Your task to perform on an android device: Clear all items from cart on bestbuy. Search for dell xps on bestbuy, select the first entry, add it to the cart, then select checkout. Image 0: 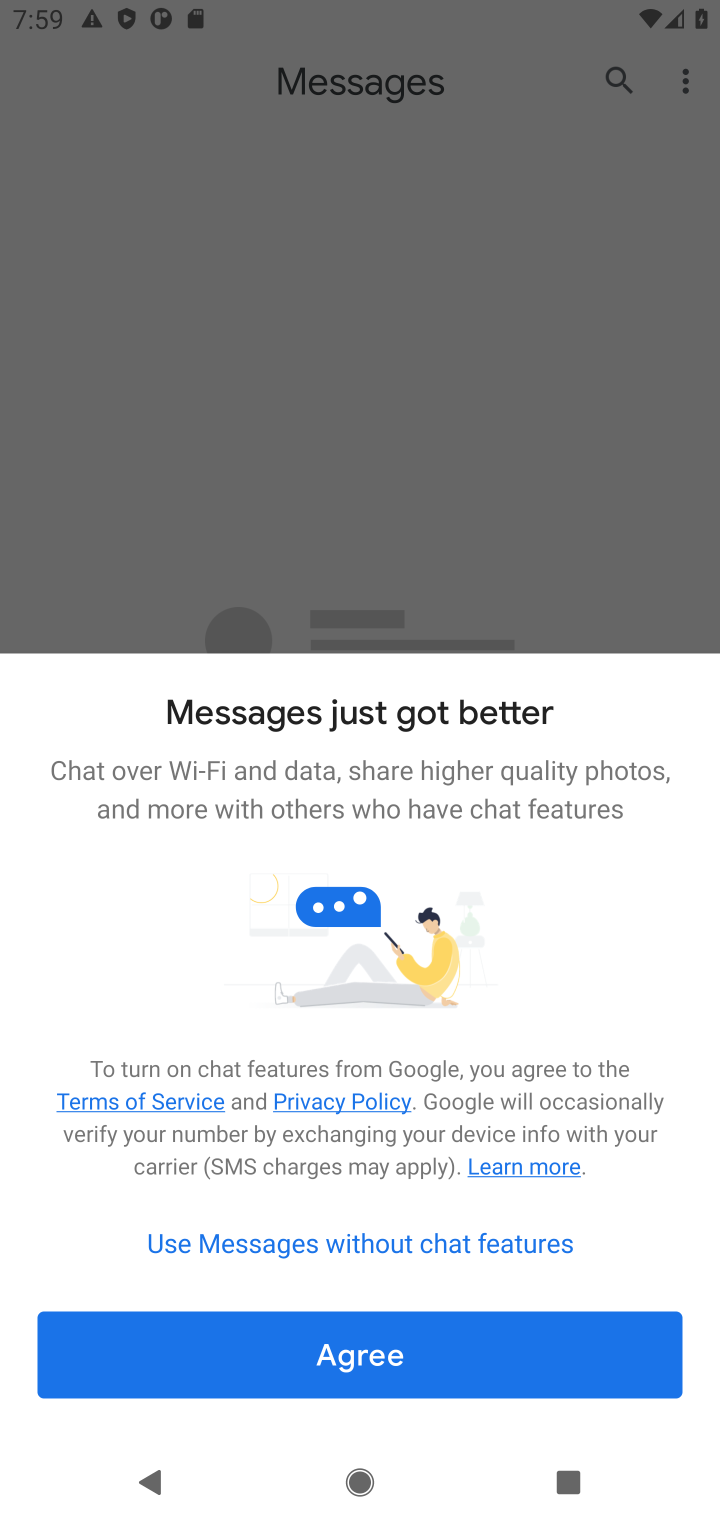
Step 0: press home button
Your task to perform on an android device: Clear all items from cart on bestbuy. Search for dell xps on bestbuy, select the first entry, add it to the cart, then select checkout. Image 1: 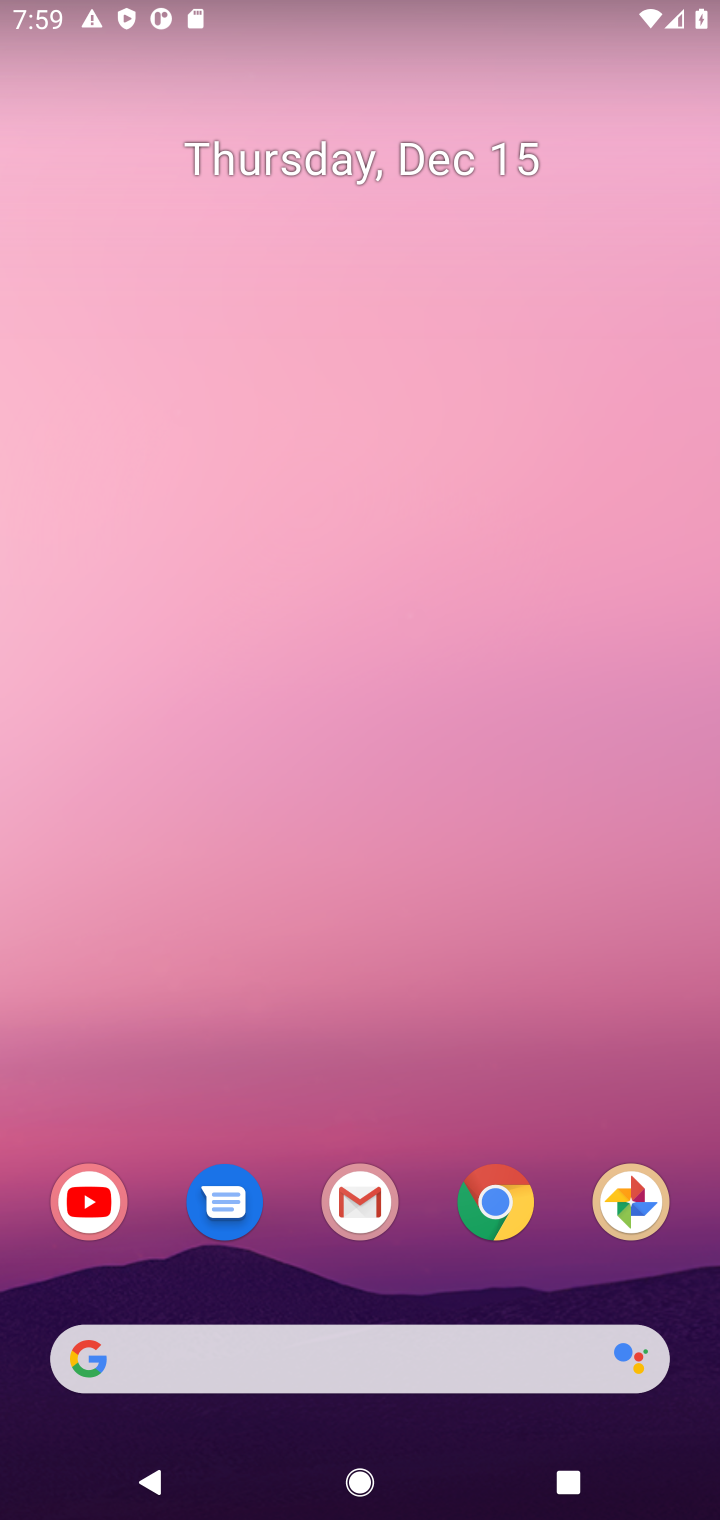
Step 1: click (493, 1214)
Your task to perform on an android device: Clear all items from cart on bestbuy. Search for dell xps on bestbuy, select the first entry, add it to the cart, then select checkout. Image 2: 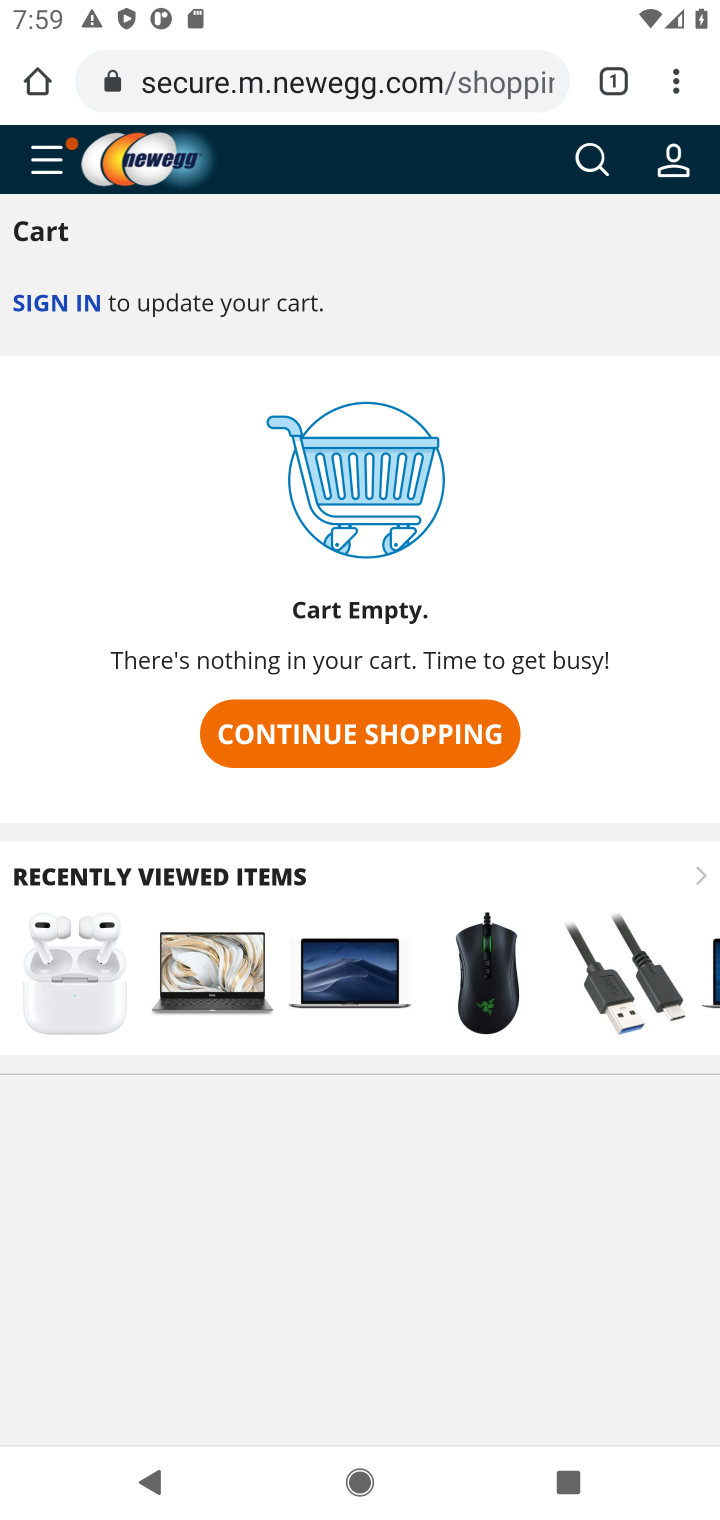
Step 2: click (247, 88)
Your task to perform on an android device: Clear all items from cart on bestbuy. Search for dell xps on bestbuy, select the first entry, add it to the cart, then select checkout. Image 3: 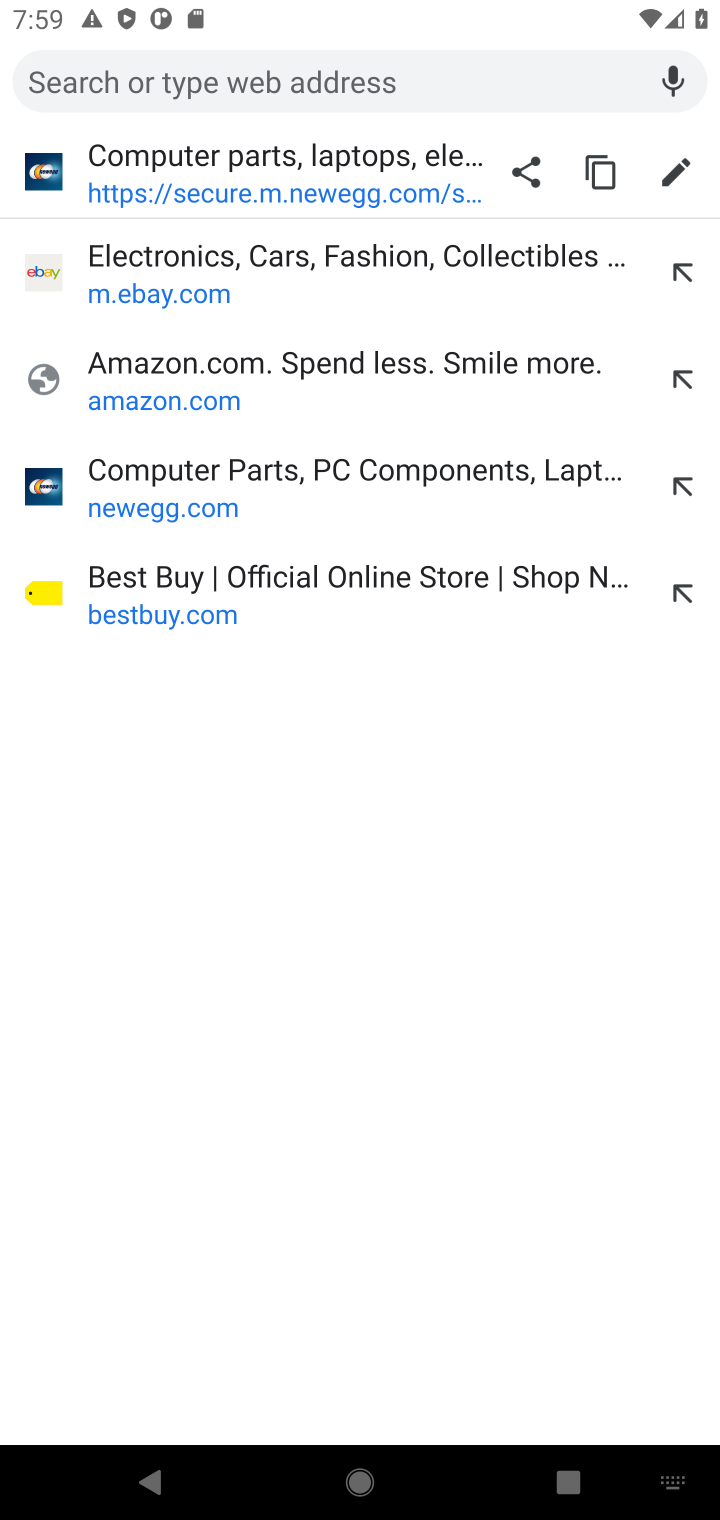
Step 3: click (167, 608)
Your task to perform on an android device: Clear all items from cart on bestbuy. Search for dell xps on bestbuy, select the first entry, add it to the cart, then select checkout. Image 4: 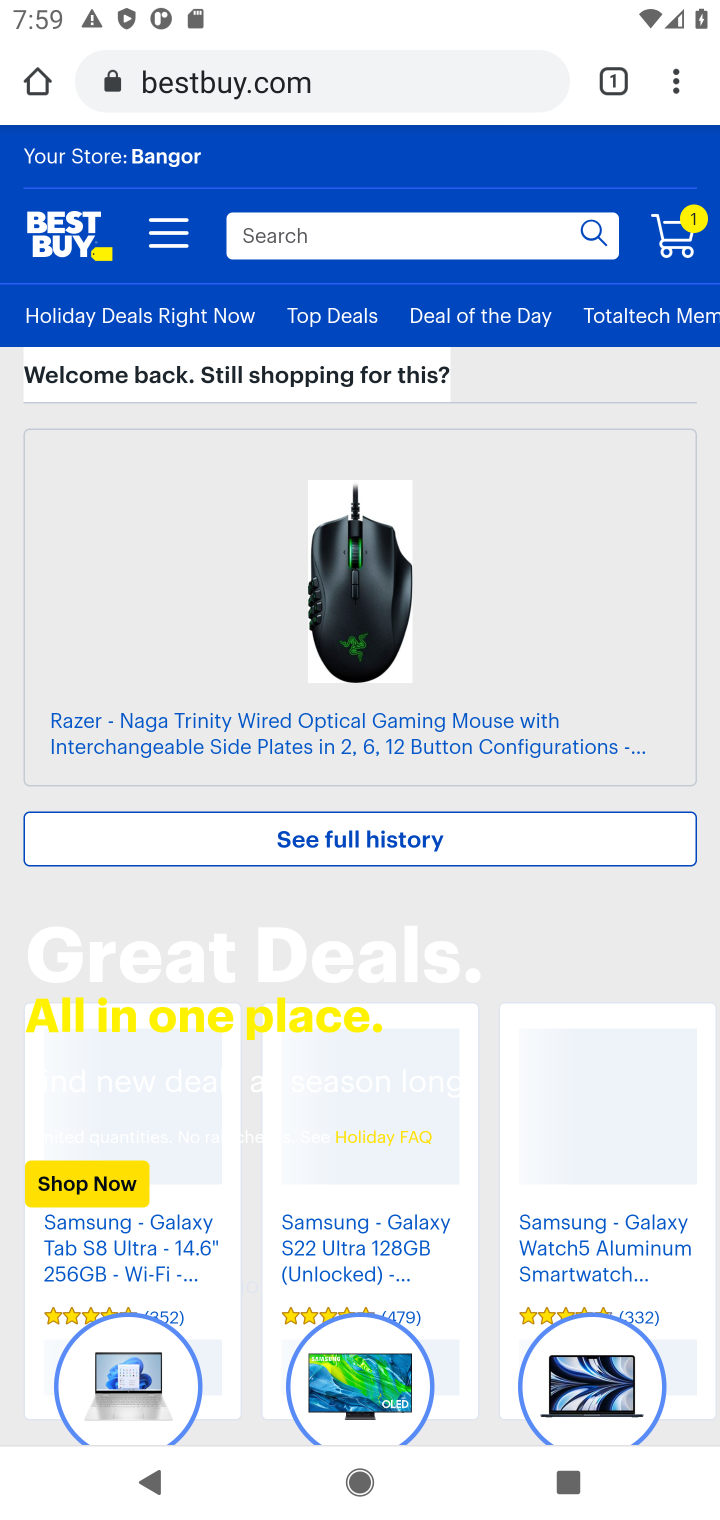
Step 4: click (668, 244)
Your task to perform on an android device: Clear all items from cart on bestbuy. Search for dell xps on bestbuy, select the first entry, add it to the cart, then select checkout. Image 5: 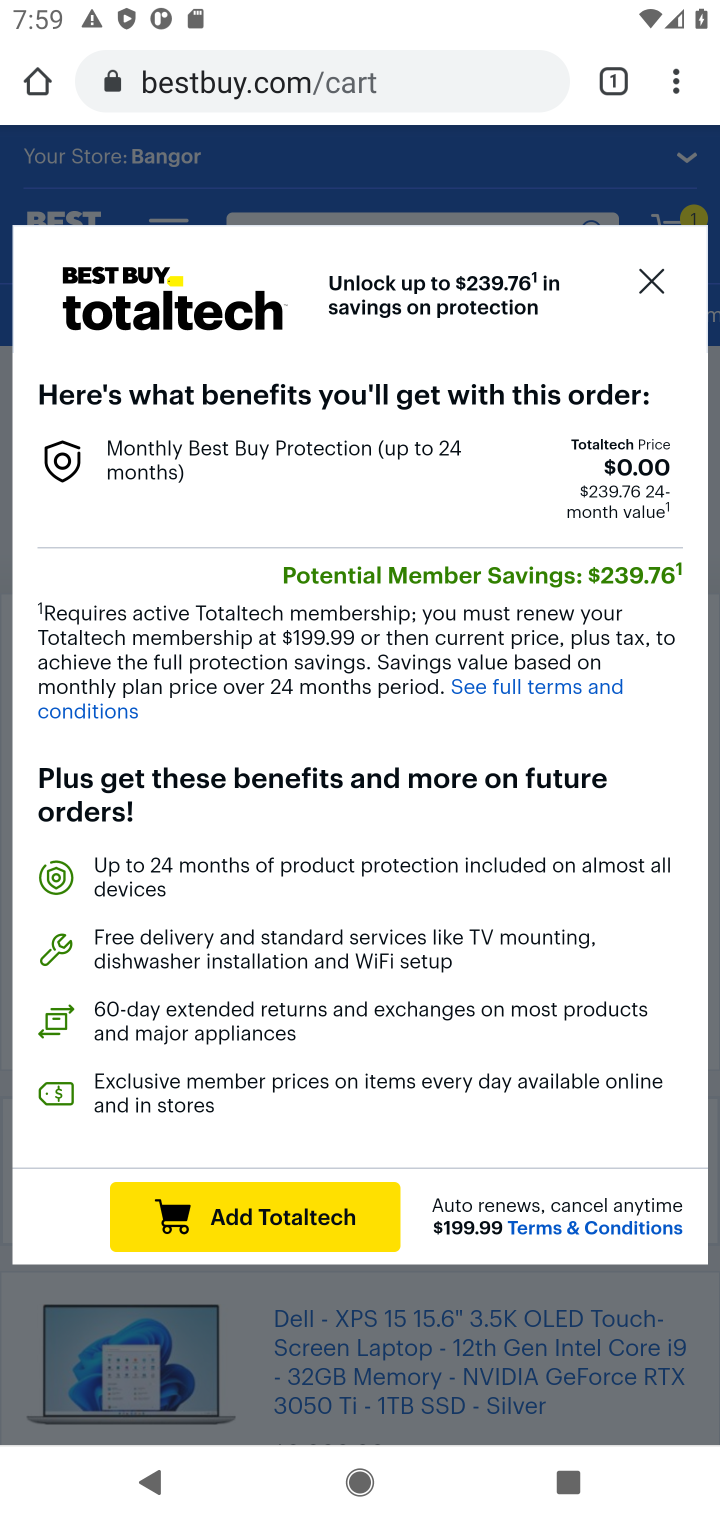
Step 5: click (654, 280)
Your task to perform on an android device: Clear all items from cart on bestbuy. Search for dell xps on bestbuy, select the first entry, add it to the cart, then select checkout. Image 6: 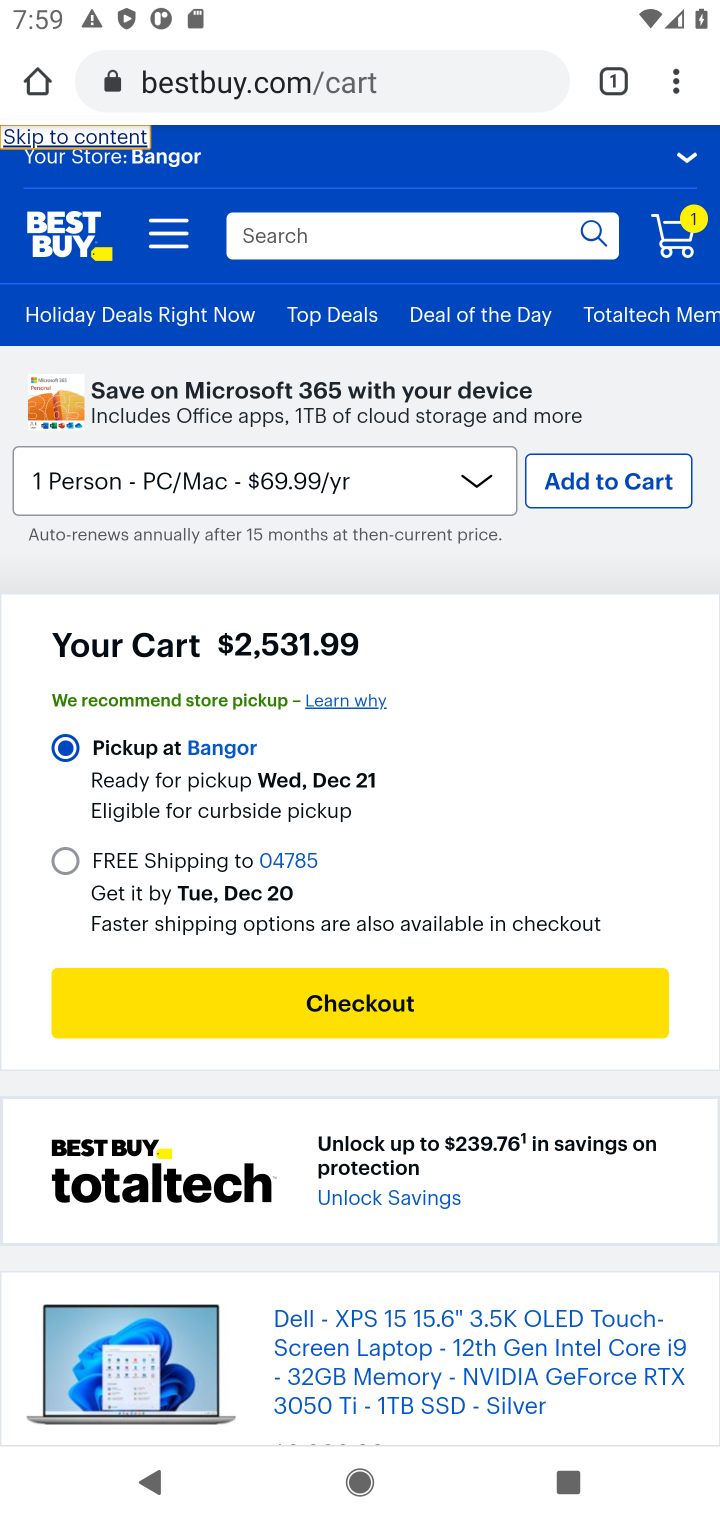
Step 6: drag from (517, 961) to (483, 441)
Your task to perform on an android device: Clear all items from cart on bestbuy. Search for dell xps on bestbuy, select the first entry, add it to the cart, then select checkout. Image 7: 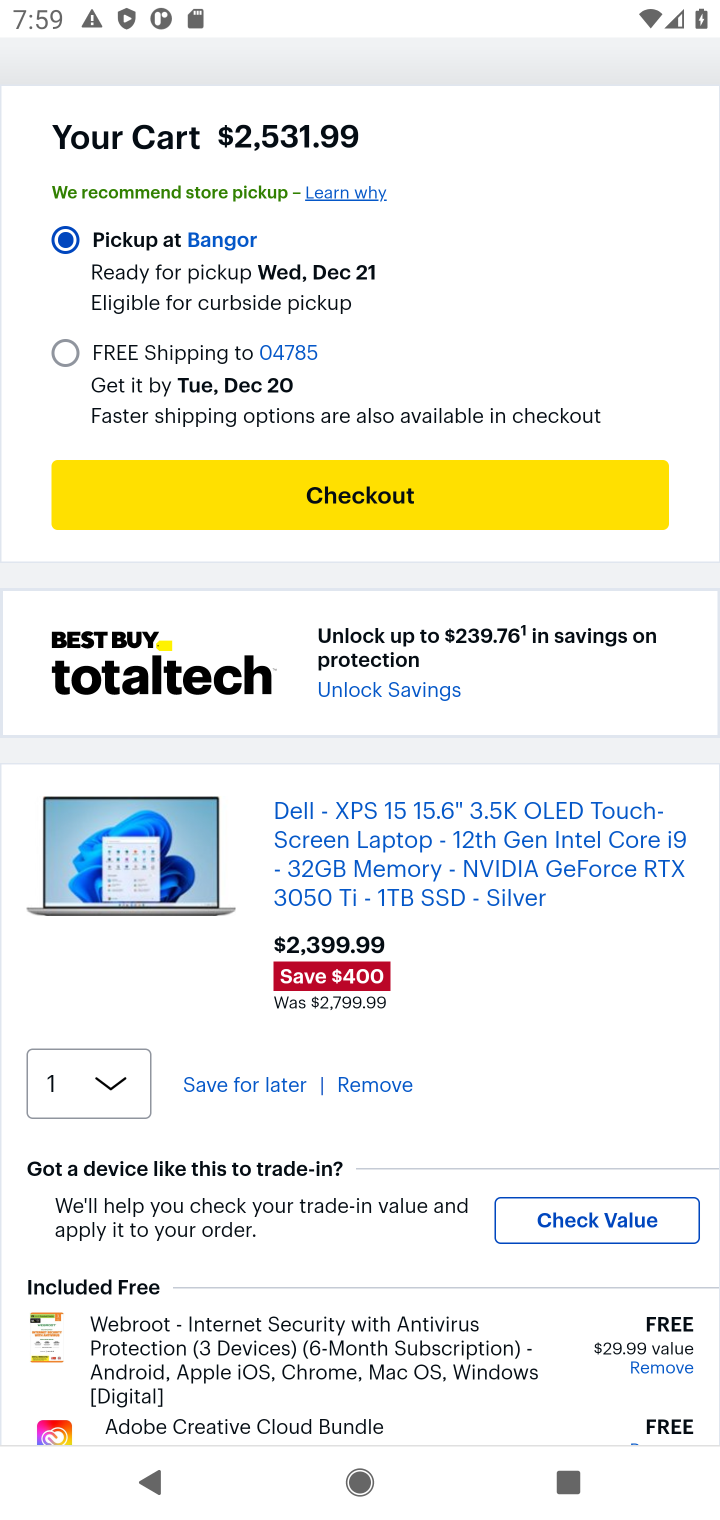
Step 7: click (363, 1084)
Your task to perform on an android device: Clear all items from cart on bestbuy. Search for dell xps on bestbuy, select the first entry, add it to the cart, then select checkout. Image 8: 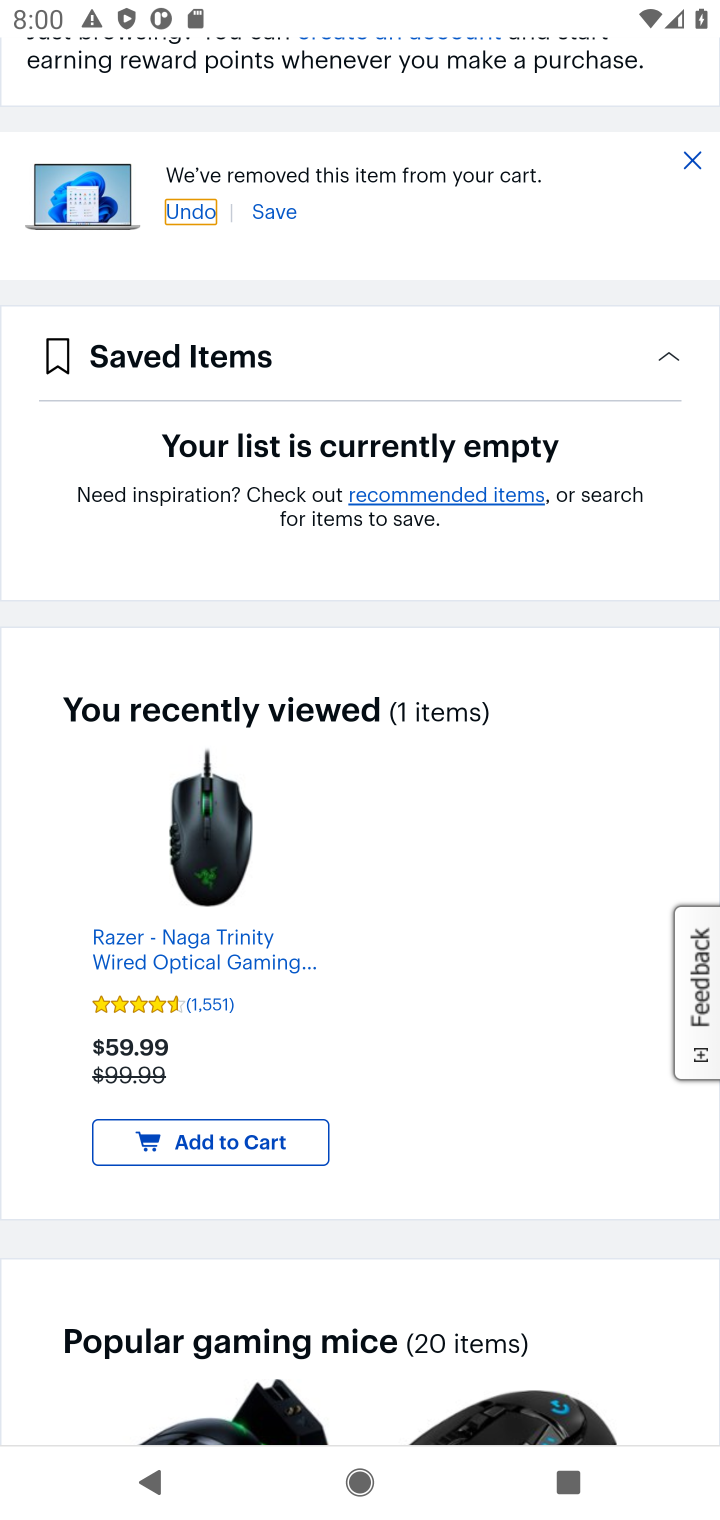
Step 8: drag from (546, 629) to (488, 994)
Your task to perform on an android device: Clear all items from cart on bestbuy. Search for dell xps on bestbuy, select the first entry, add it to the cart, then select checkout. Image 9: 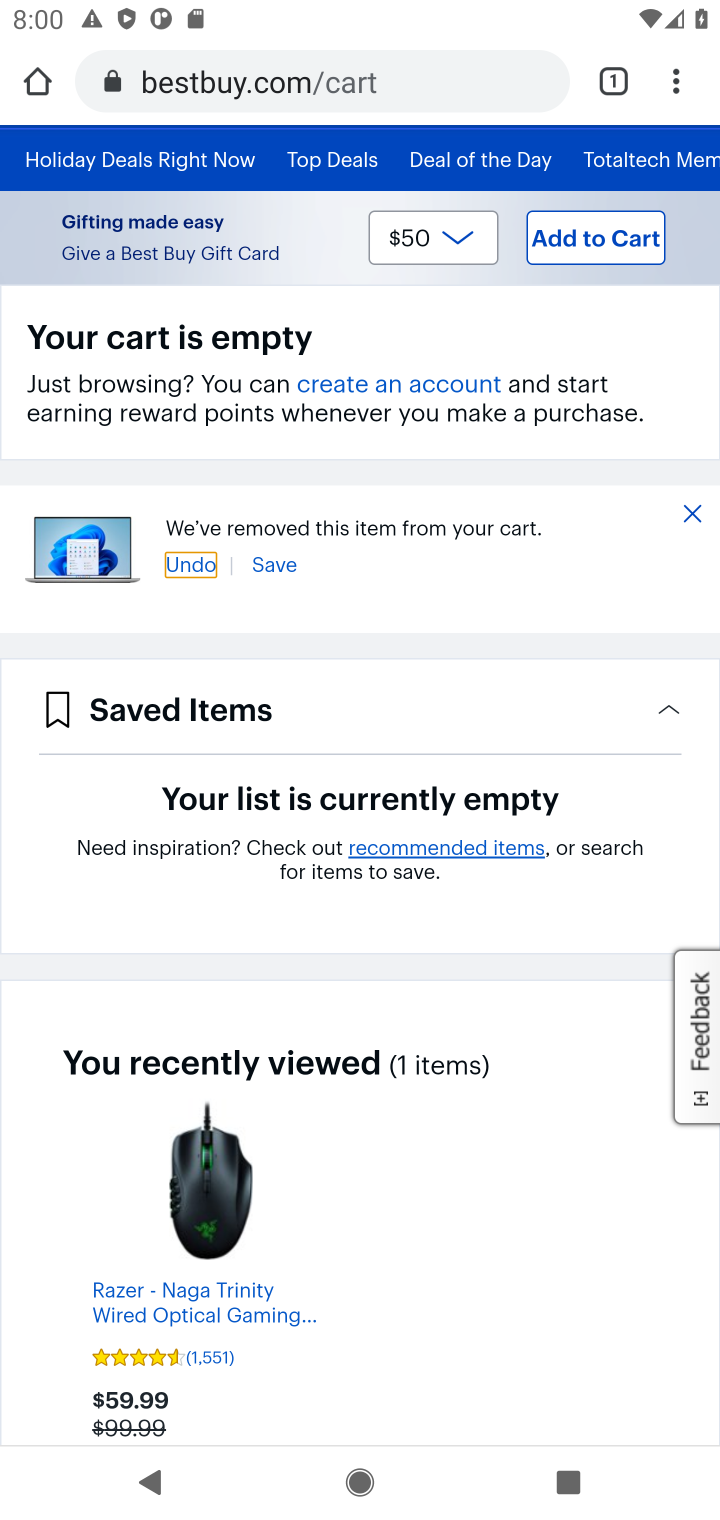
Step 9: drag from (329, 508) to (321, 785)
Your task to perform on an android device: Clear all items from cart on bestbuy. Search for dell xps on bestbuy, select the first entry, add it to the cart, then select checkout. Image 10: 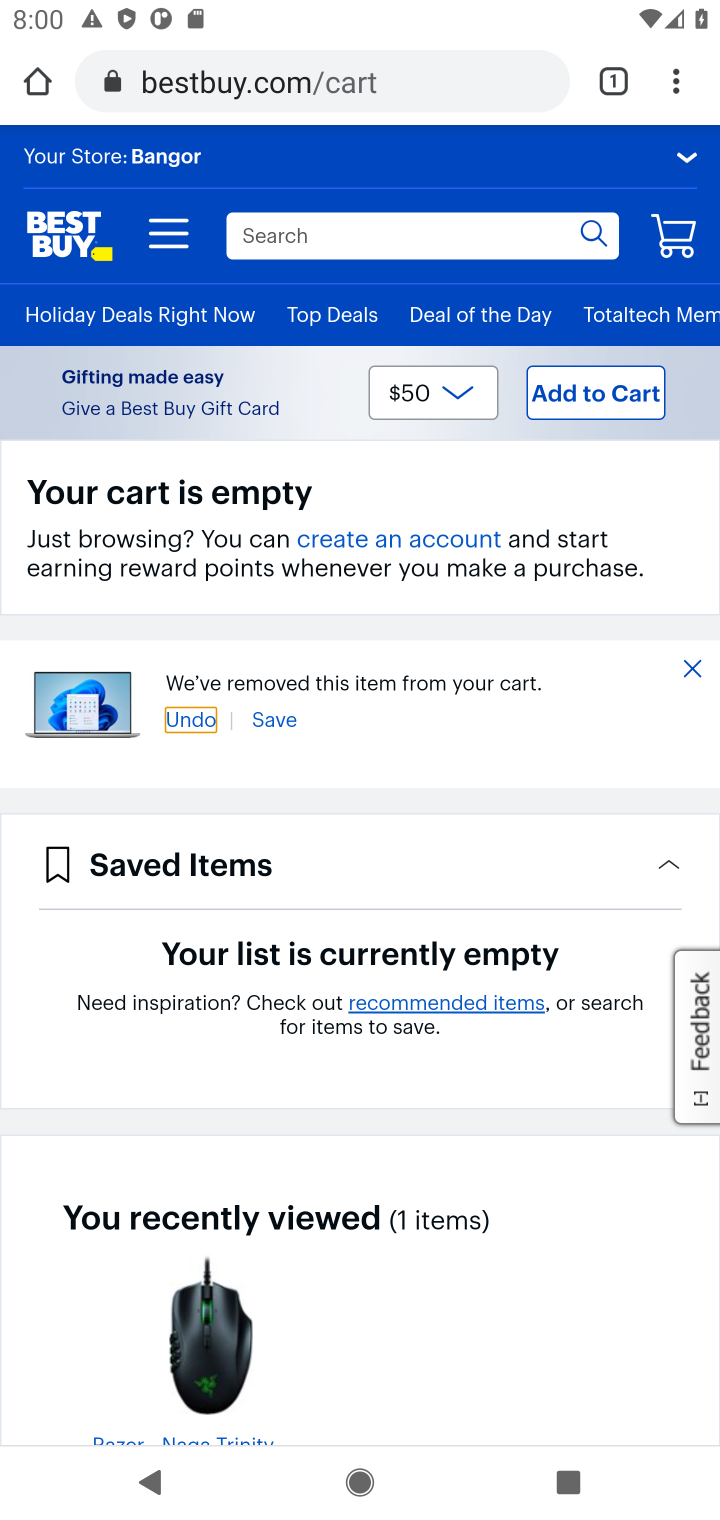
Step 10: click (283, 242)
Your task to perform on an android device: Clear all items from cart on bestbuy. Search for dell xps on bestbuy, select the first entry, add it to the cart, then select checkout. Image 11: 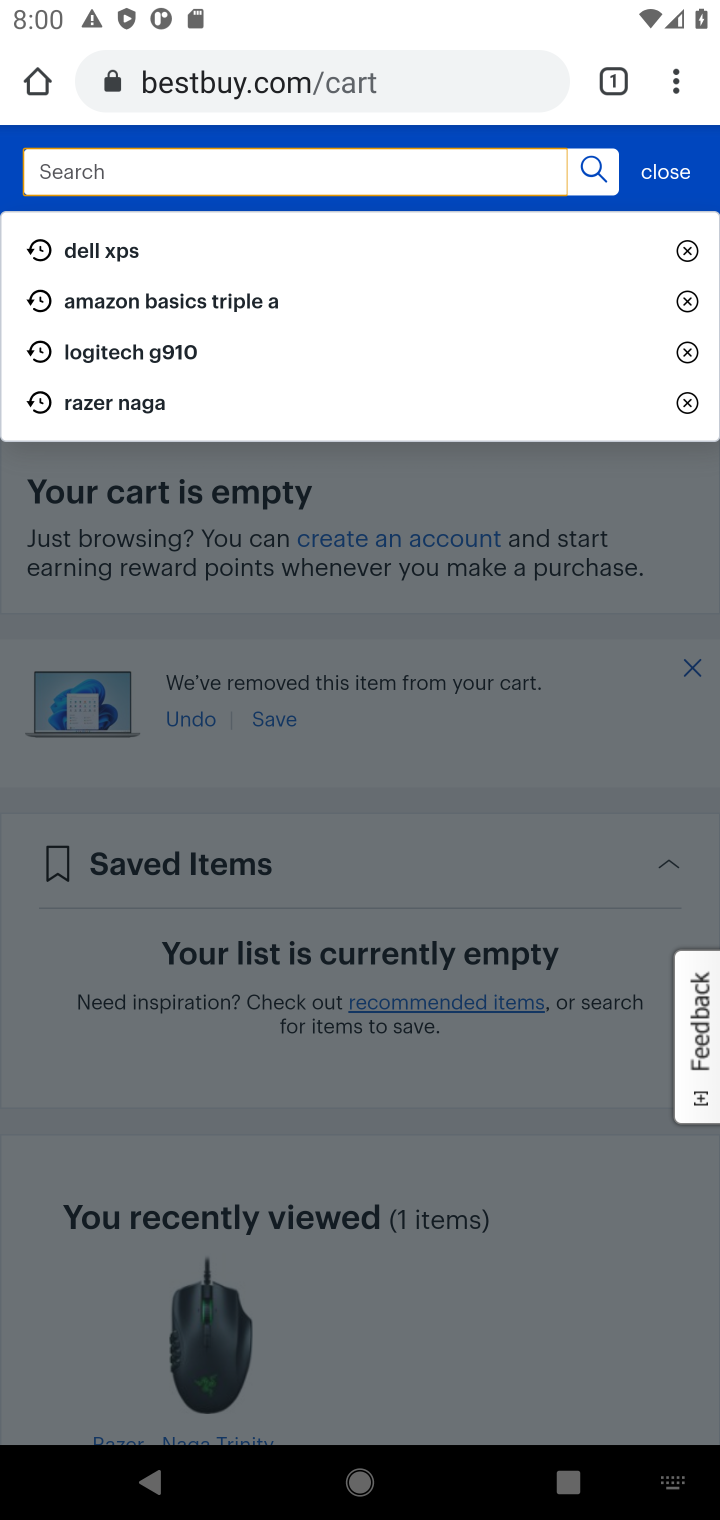
Step 11: type "dell xps"
Your task to perform on an android device: Clear all items from cart on bestbuy. Search for dell xps on bestbuy, select the first entry, add it to the cart, then select checkout. Image 12: 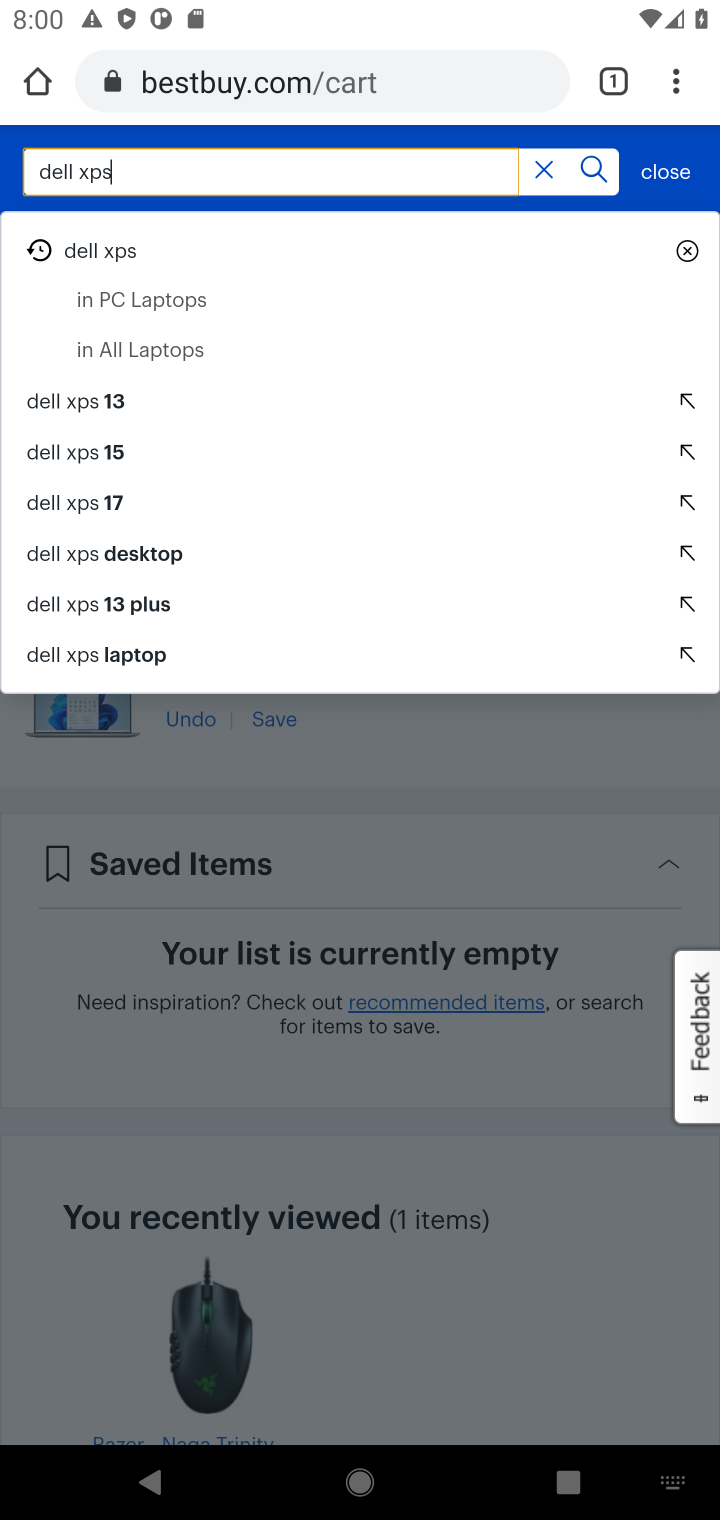
Step 12: click (92, 258)
Your task to perform on an android device: Clear all items from cart on bestbuy. Search for dell xps on bestbuy, select the first entry, add it to the cart, then select checkout. Image 13: 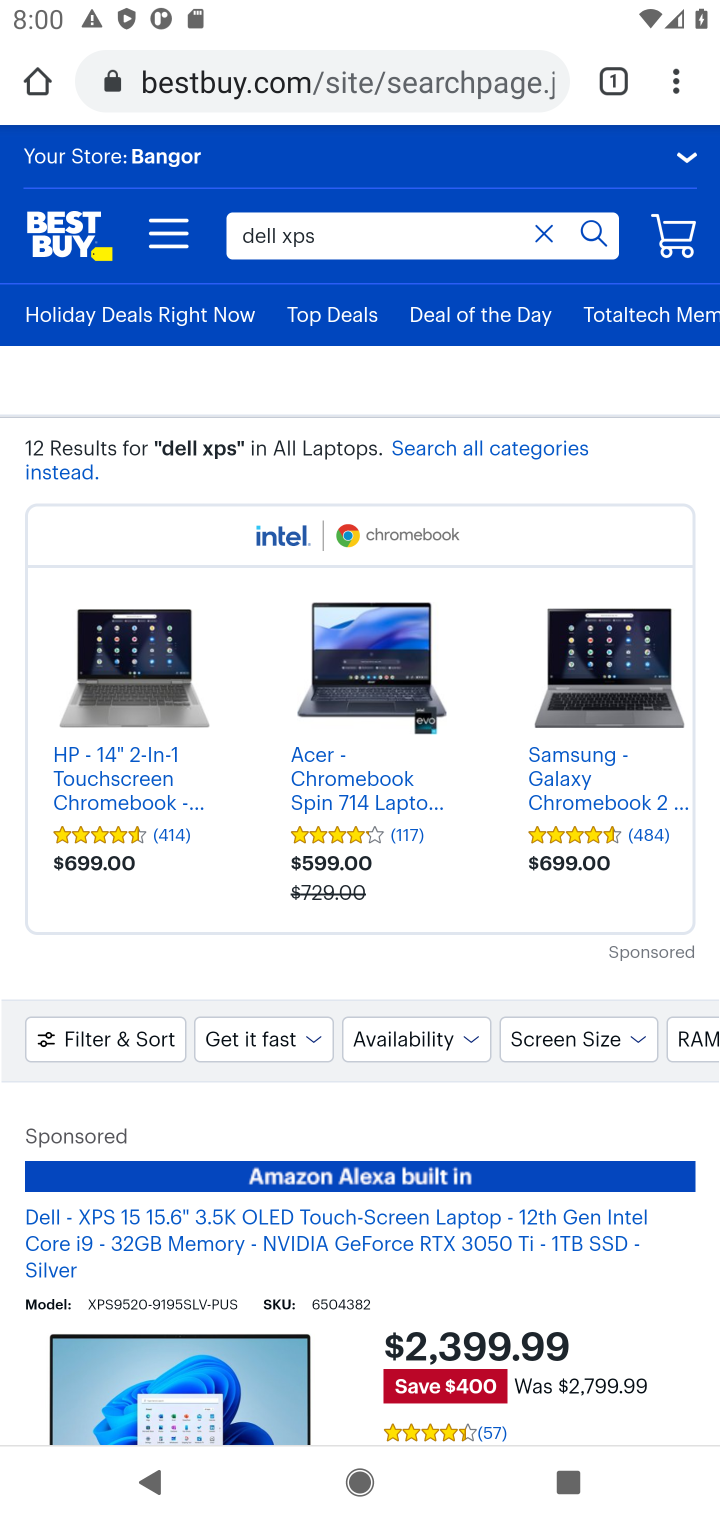
Step 13: drag from (271, 1250) to (233, 624)
Your task to perform on an android device: Clear all items from cart on bestbuy. Search for dell xps on bestbuy, select the first entry, add it to the cart, then select checkout. Image 14: 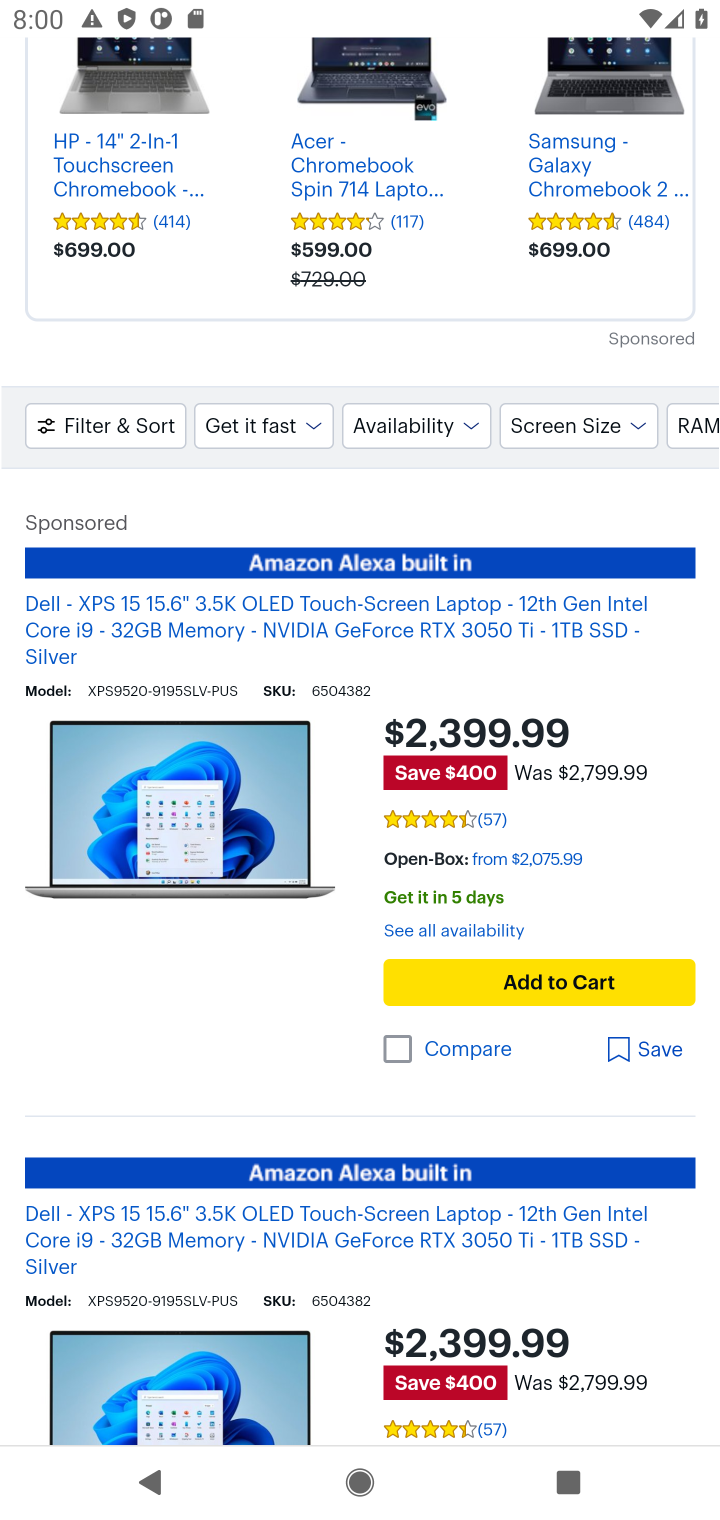
Step 14: click (466, 969)
Your task to perform on an android device: Clear all items from cart on bestbuy. Search for dell xps on bestbuy, select the first entry, add it to the cart, then select checkout. Image 15: 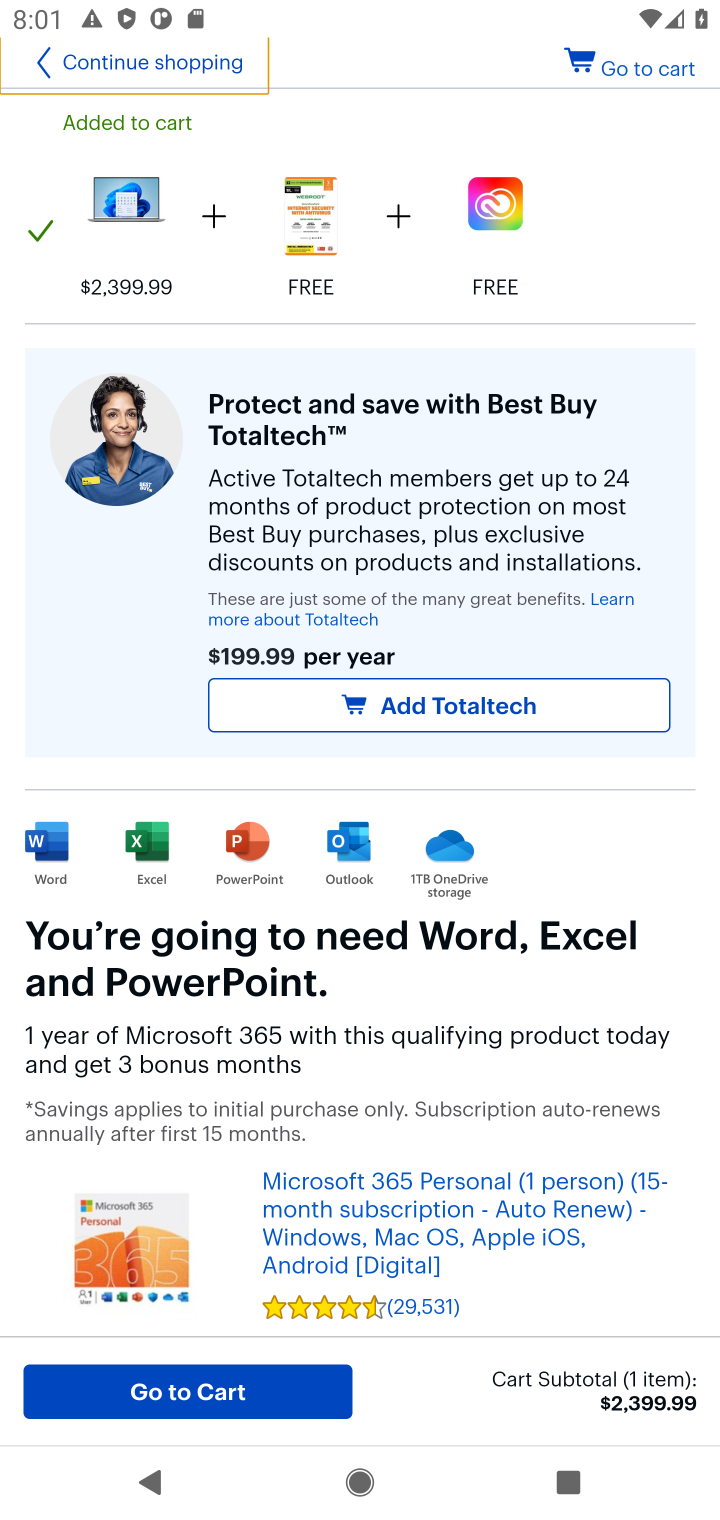
Step 15: click (630, 66)
Your task to perform on an android device: Clear all items from cart on bestbuy. Search for dell xps on bestbuy, select the first entry, add it to the cart, then select checkout. Image 16: 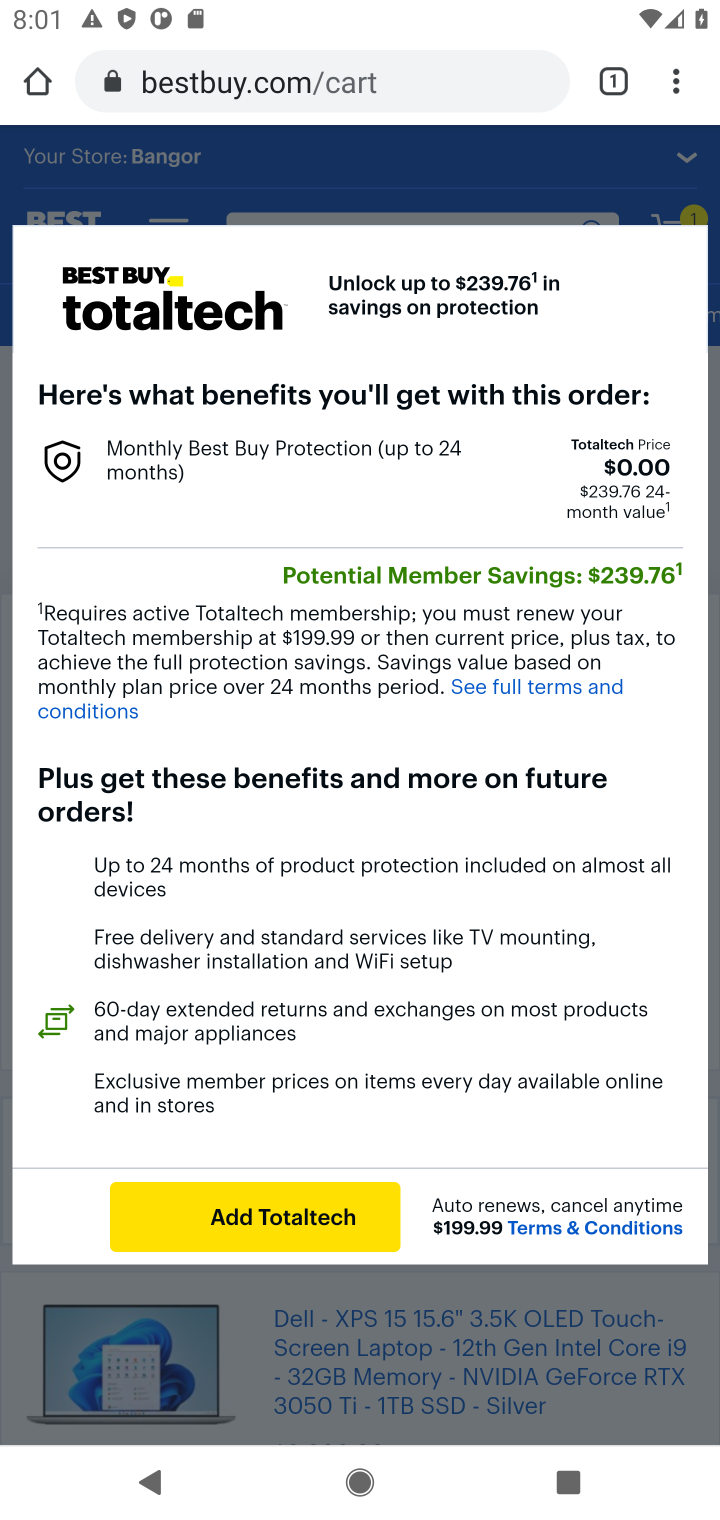
Step 16: click (337, 1016)
Your task to perform on an android device: Clear all items from cart on bestbuy. Search for dell xps on bestbuy, select the first entry, add it to the cart, then select checkout. Image 17: 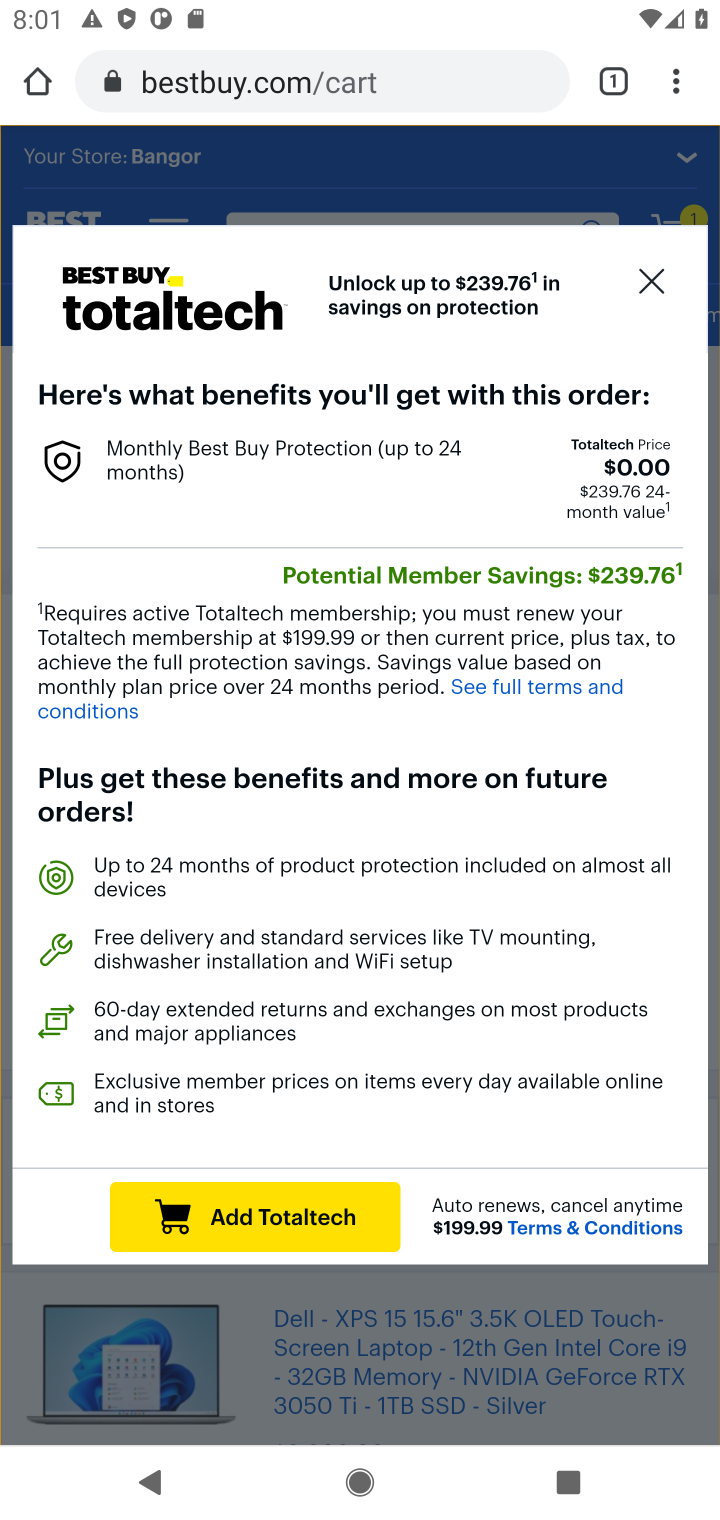
Step 17: click (664, 276)
Your task to perform on an android device: Clear all items from cart on bestbuy. Search for dell xps on bestbuy, select the first entry, add it to the cart, then select checkout. Image 18: 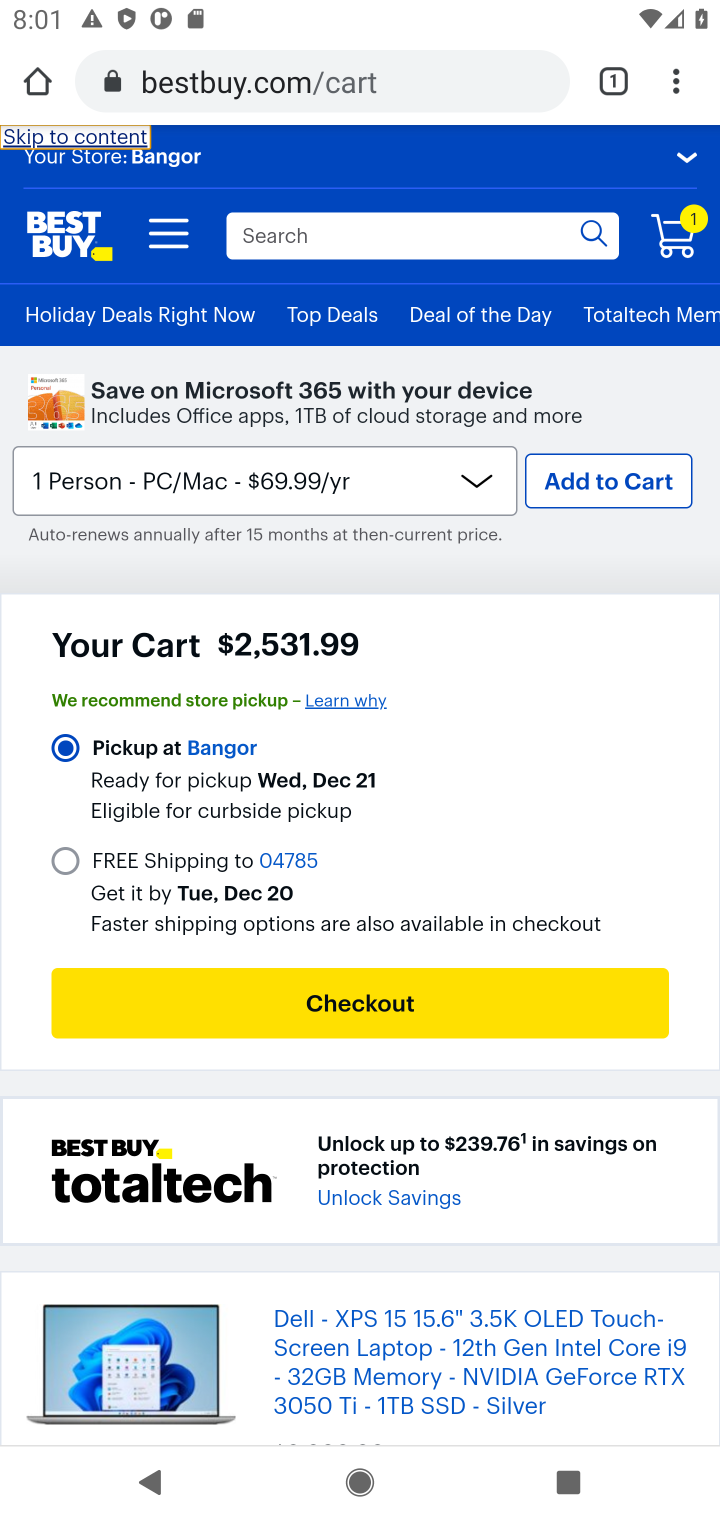
Step 18: click (353, 1020)
Your task to perform on an android device: Clear all items from cart on bestbuy. Search for dell xps on bestbuy, select the first entry, add it to the cart, then select checkout. Image 19: 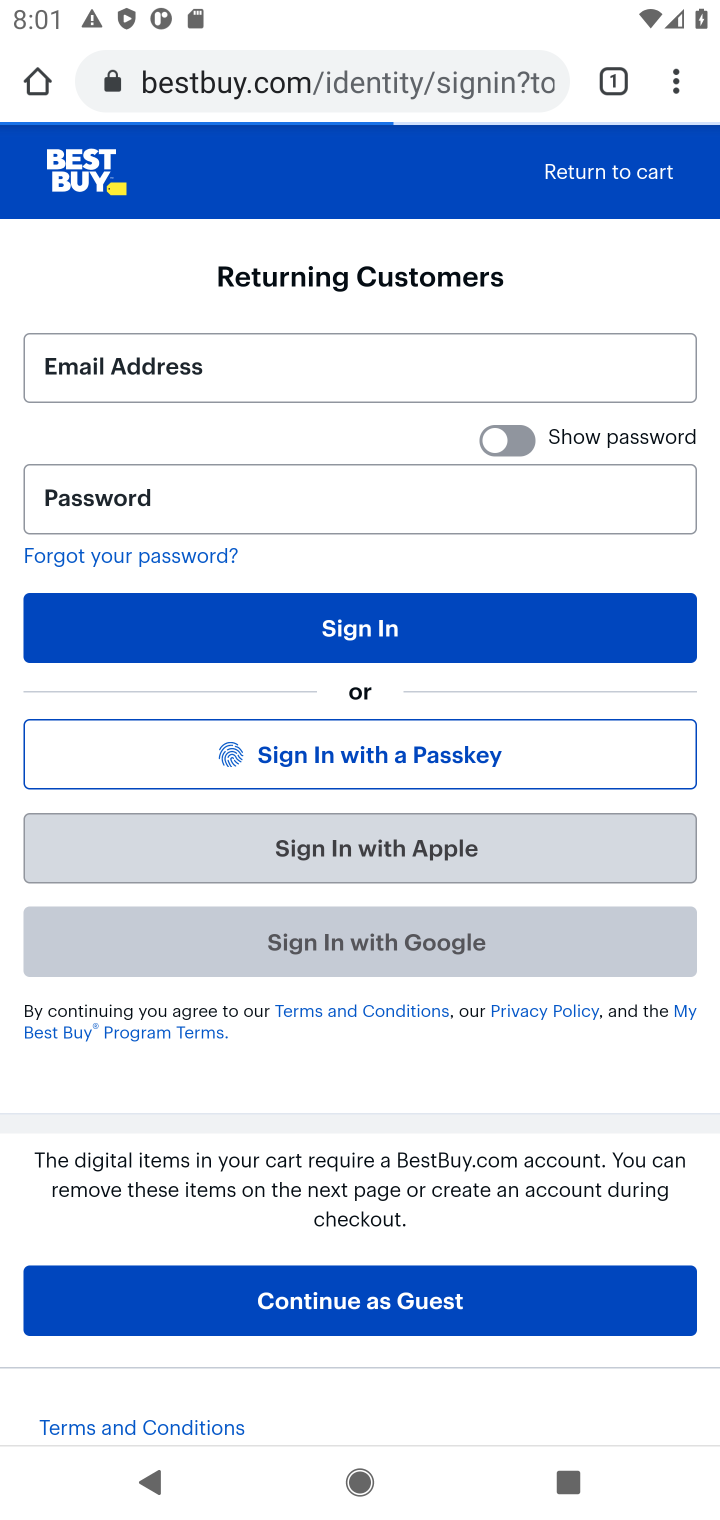
Step 19: task complete